Your task to perform on an android device: set an alarm Image 0: 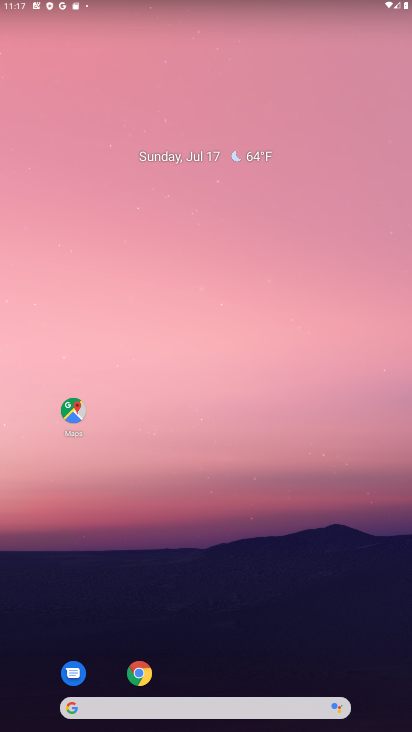
Step 0: drag from (201, 686) to (196, 68)
Your task to perform on an android device: set an alarm Image 1: 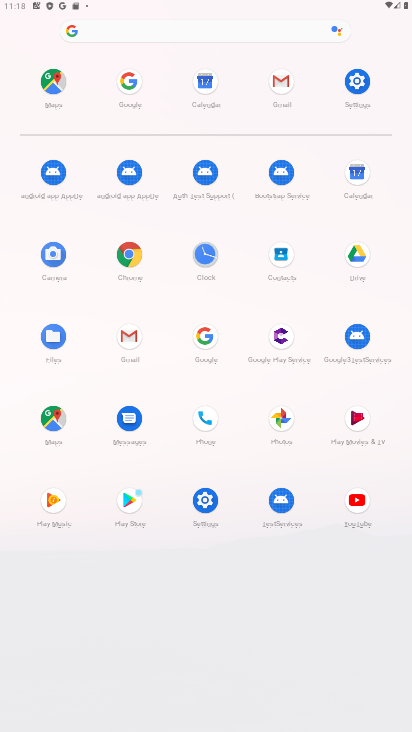
Step 1: click (207, 253)
Your task to perform on an android device: set an alarm Image 2: 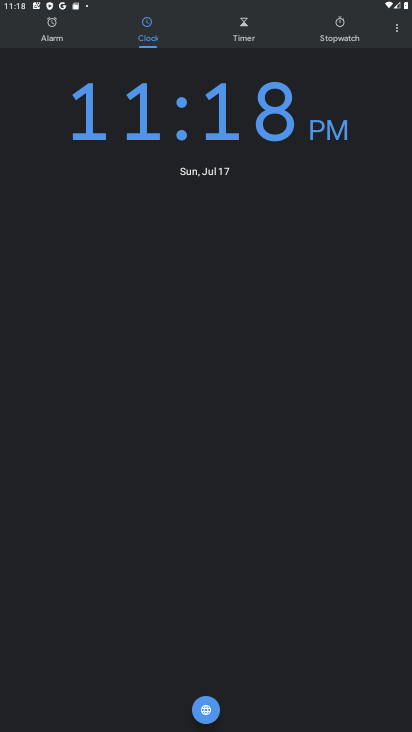
Step 2: click (55, 35)
Your task to perform on an android device: set an alarm Image 3: 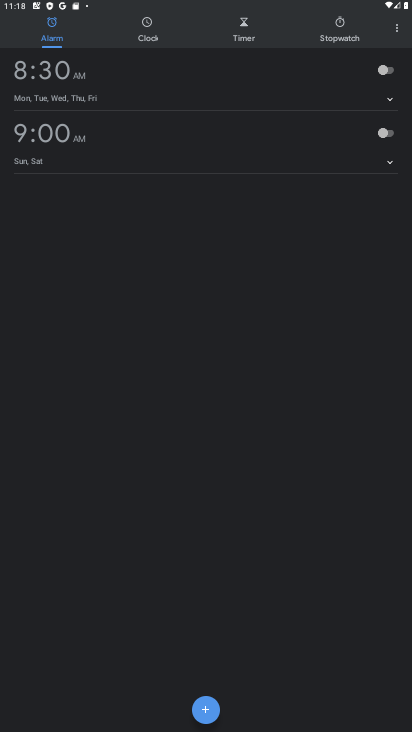
Step 3: click (386, 72)
Your task to perform on an android device: set an alarm Image 4: 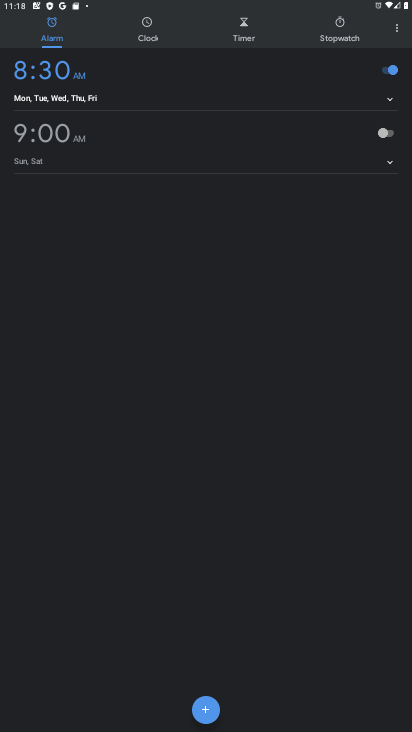
Step 4: task complete